Your task to perform on an android device: turn vacation reply on in the gmail app Image 0: 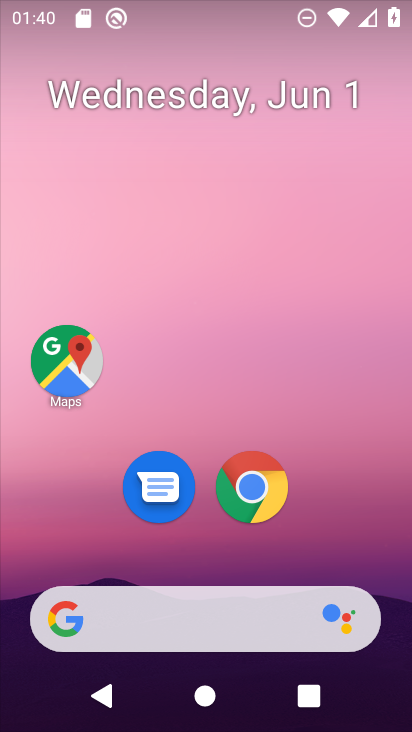
Step 0: drag from (310, 556) to (350, 213)
Your task to perform on an android device: turn vacation reply on in the gmail app Image 1: 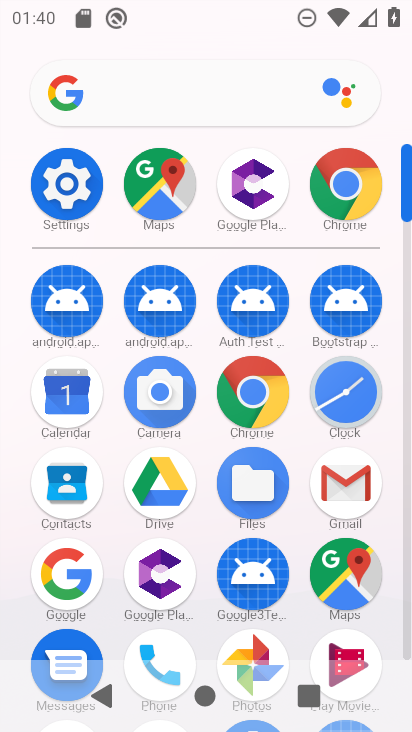
Step 1: click (342, 480)
Your task to perform on an android device: turn vacation reply on in the gmail app Image 2: 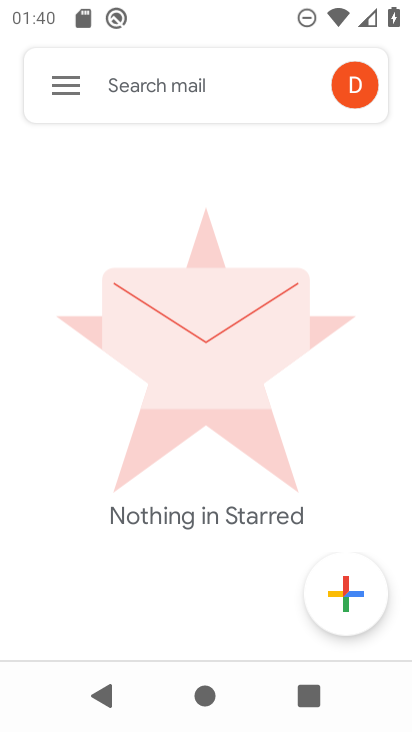
Step 2: click (59, 84)
Your task to perform on an android device: turn vacation reply on in the gmail app Image 3: 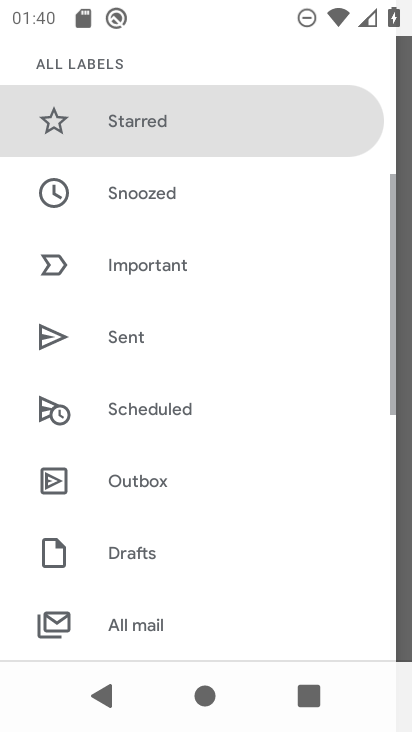
Step 3: drag from (177, 592) to (222, 269)
Your task to perform on an android device: turn vacation reply on in the gmail app Image 4: 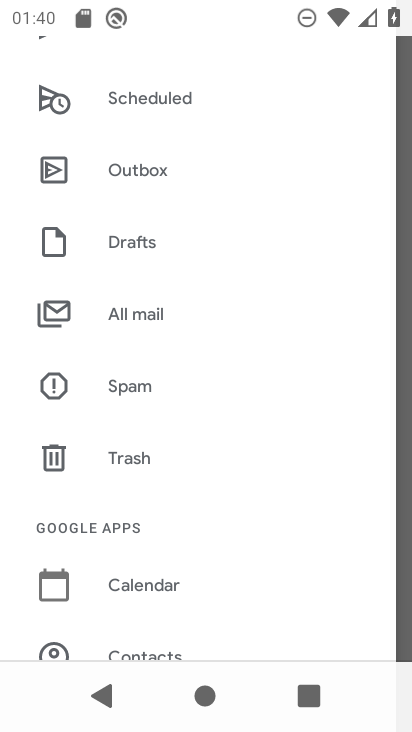
Step 4: drag from (145, 582) to (249, 272)
Your task to perform on an android device: turn vacation reply on in the gmail app Image 5: 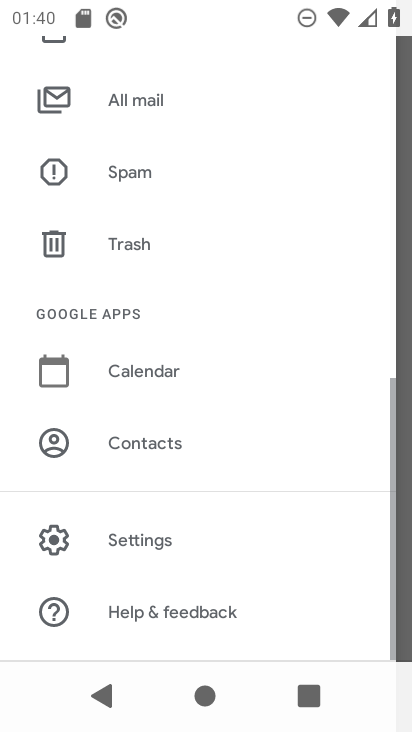
Step 5: click (153, 538)
Your task to perform on an android device: turn vacation reply on in the gmail app Image 6: 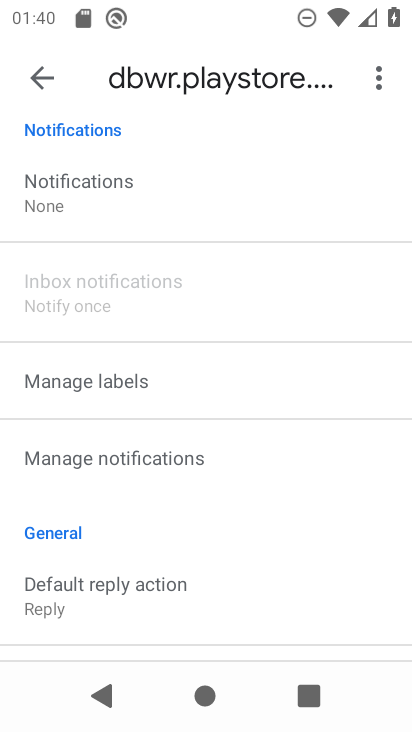
Step 6: drag from (171, 493) to (226, 225)
Your task to perform on an android device: turn vacation reply on in the gmail app Image 7: 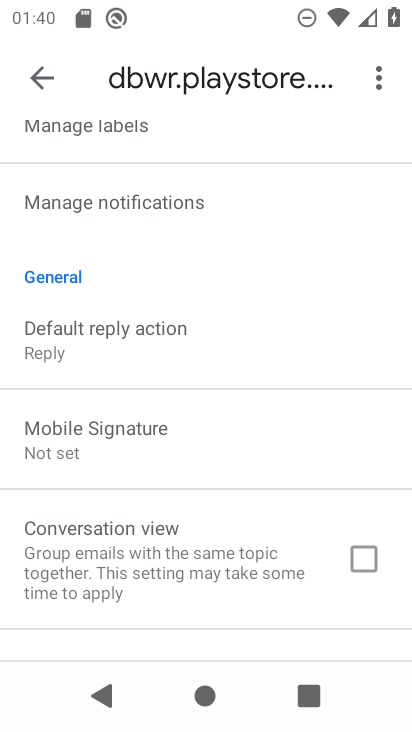
Step 7: drag from (177, 597) to (243, 282)
Your task to perform on an android device: turn vacation reply on in the gmail app Image 8: 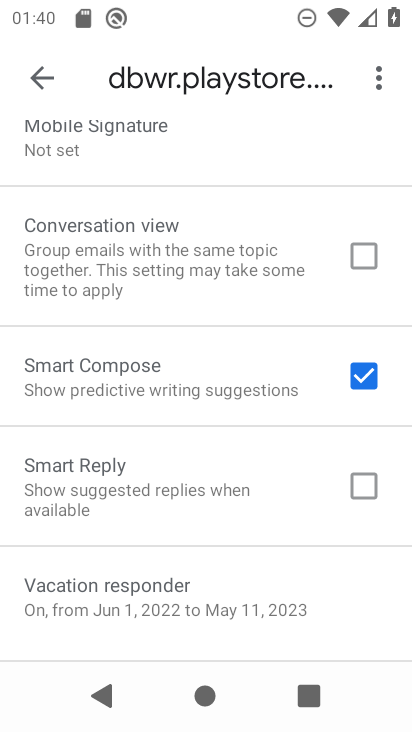
Step 8: drag from (155, 515) to (188, 326)
Your task to perform on an android device: turn vacation reply on in the gmail app Image 9: 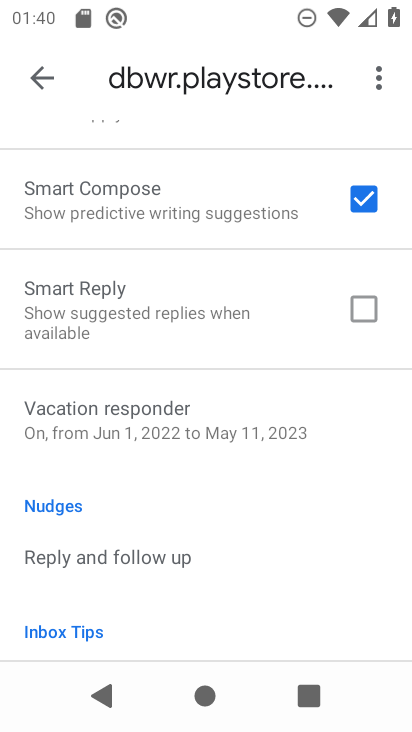
Step 9: click (162, 421)
Your task to perform on an android device: turn vacation reply on in the gmail app Image 10: 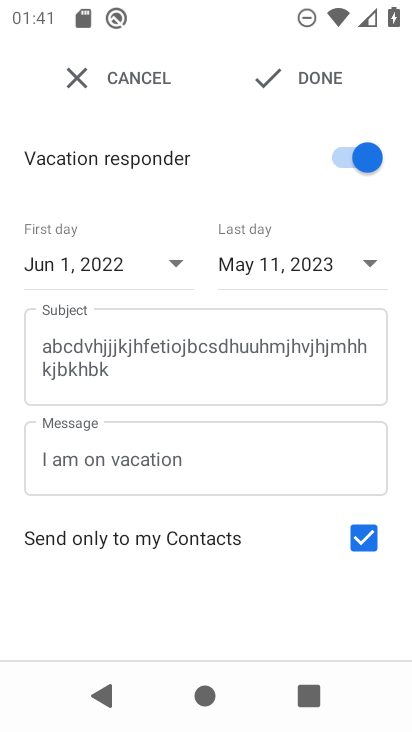
Step 10: task complete